Your task to perform on an android device: Open Yahoo.com Image 0: 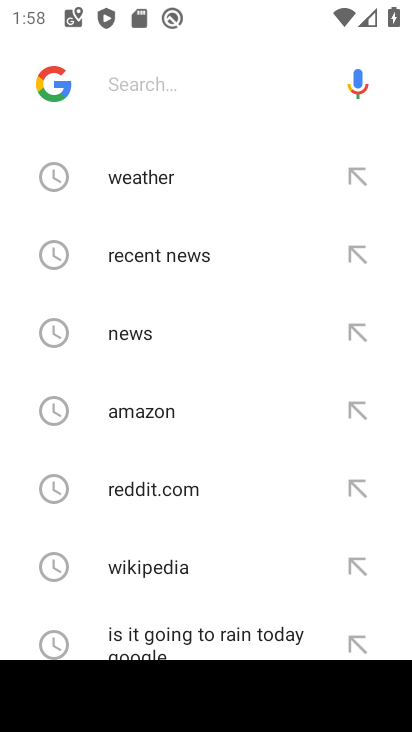
Step 0: press home button
Your task to perform on an android device: Open Yahoo.com Image 1: 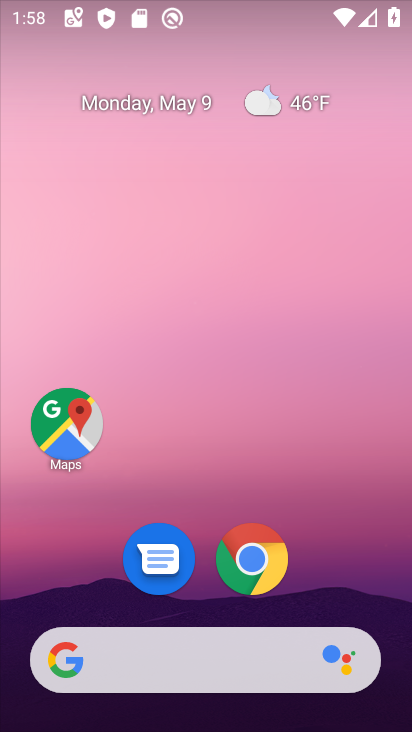
Step 1: drag from (364, 545) to (294, 179)
Your task to perform on an android device: Open Yahoo.com Image 2: 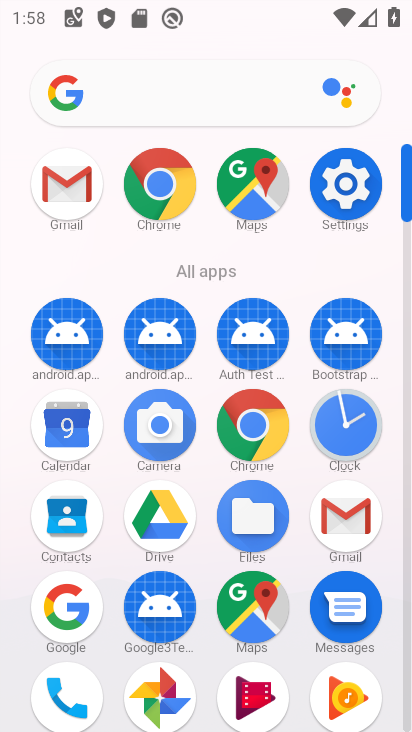
Step 2: click (253, 429)
Your task to perform on an android device: Open Yahoo.com Image 3: 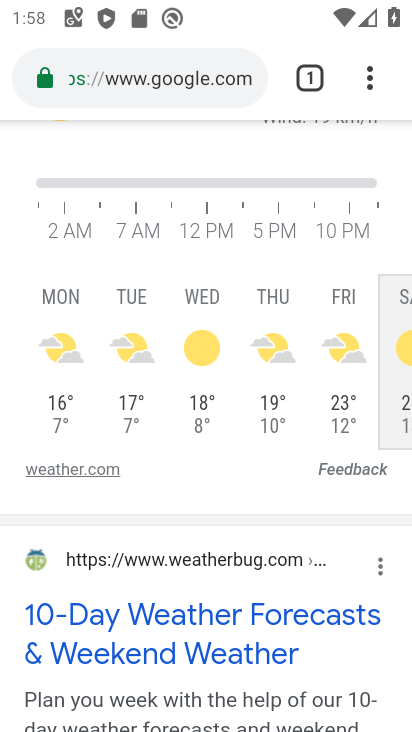
Step 3: click (221, 82)
Your task to perform on an android device: Open Yahoo.com Image 4: 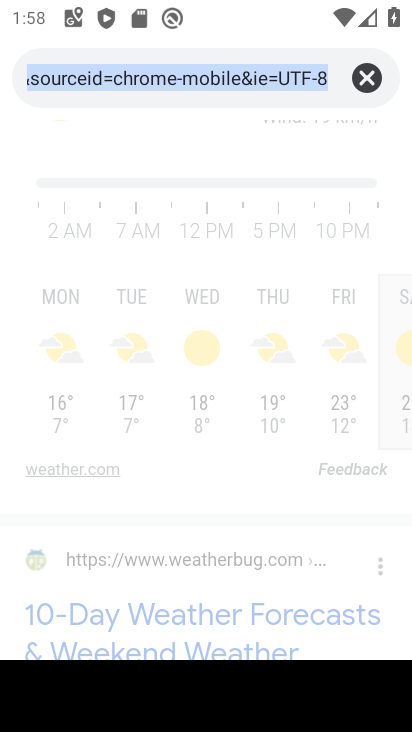
Step 4: click (380, 79)
Your task to perform on an android device: Open Yahoo.com Image 5: 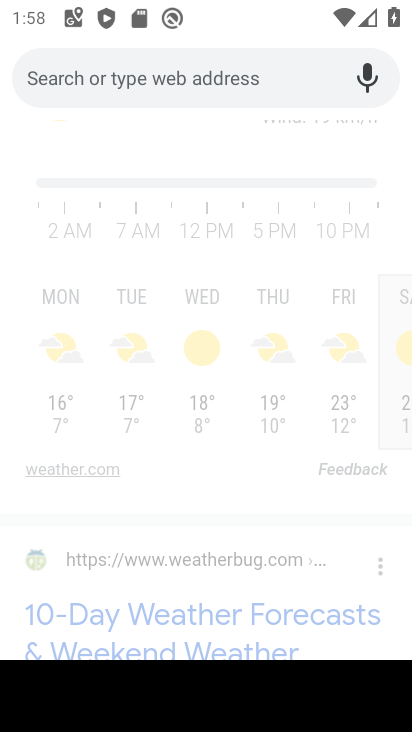
Step 5: type "yahoo.com"
Your task to perform on an android device: Open Yahoo.com Image 6: 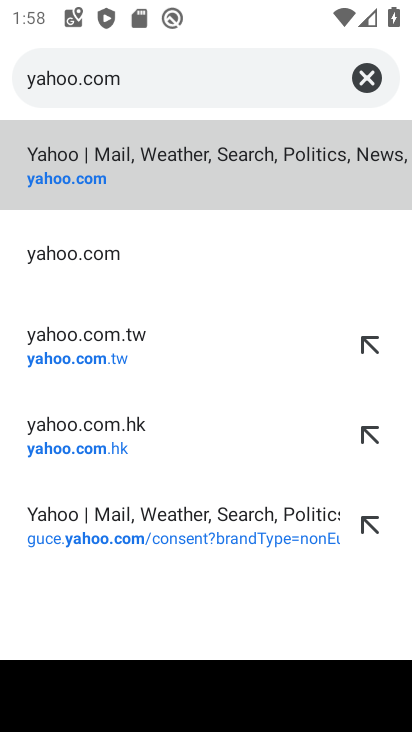
Step 6: click (120, 157)
Your task to perform on an android device: Open Yahoo.com Image 7: 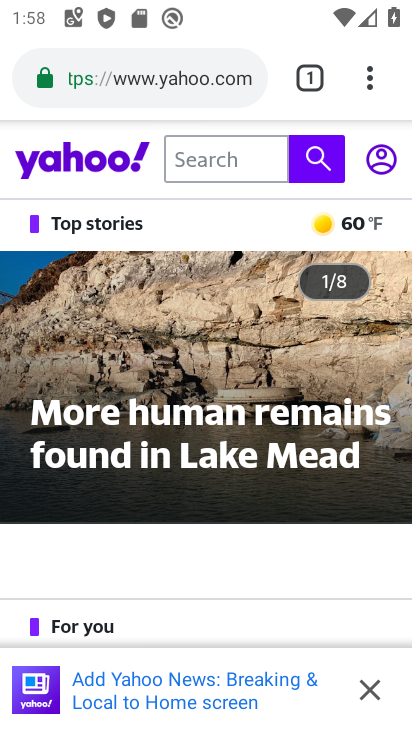
Step 7: task complete